Your task to perform on an android device: find photos in the google photos app Image 0: 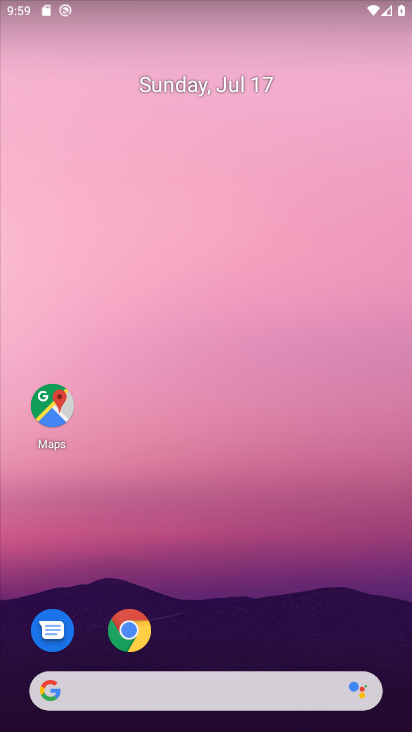
Step 0: drag from (255, 550) to (294, 20)
Your task to perform on an android device: find photos in the google photos app Image 1: 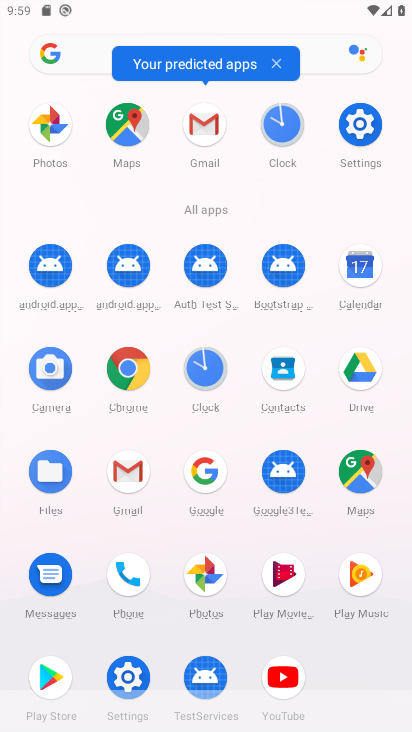
Step 1: click (49, 125)
Your task to perform on an android device: find photos in the google photos app Image 2: 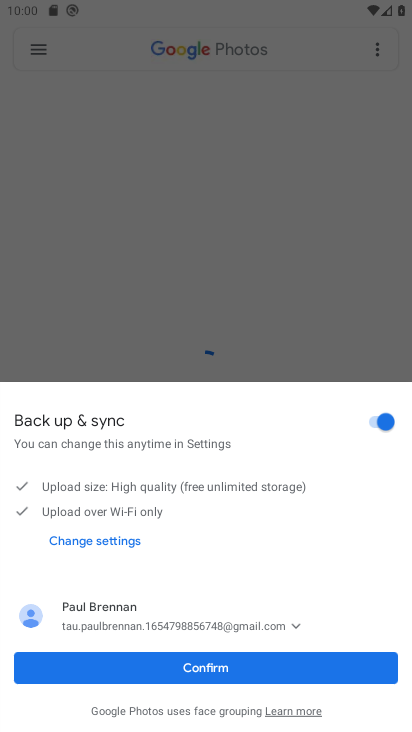
Step 2: click (332, 672)
Your task to perform on an android device: find photos in the google photos app Image 3: 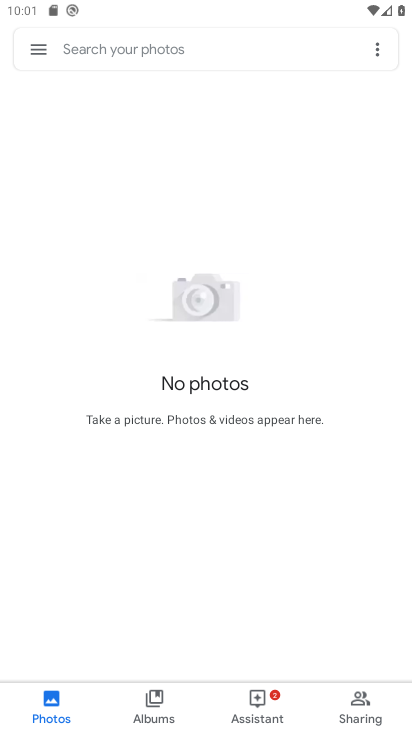
Step 3: task complete